Your task to perform on an android device: Go to settings Image 0: 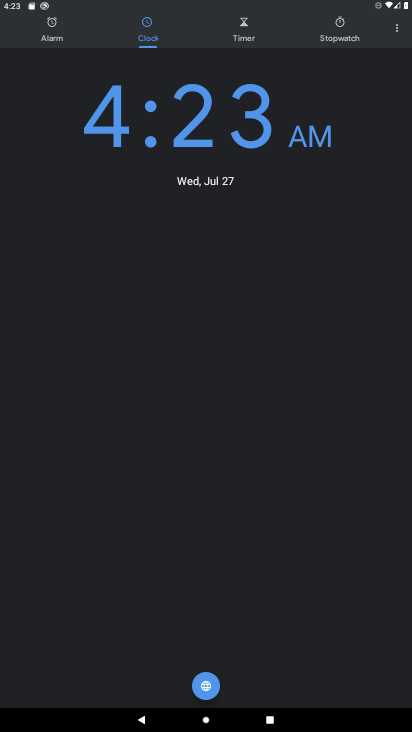
Step 0: press home button
Your task to perform on an android device: Go to settings Image 1: 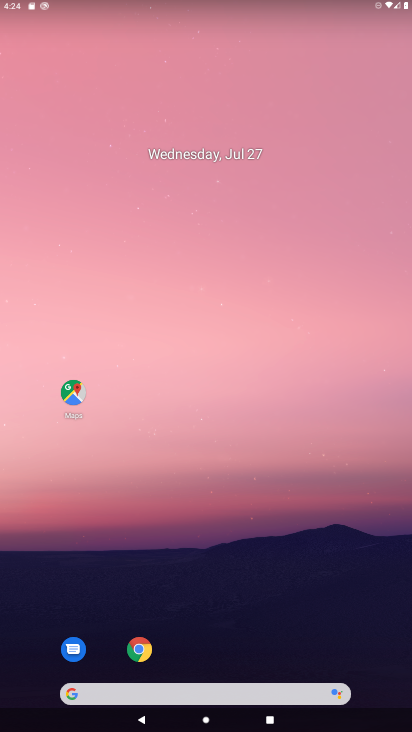
Step 1: drag from (334, 581) to (289, 272)
Your task to perform on an android device: Go to settings Image 2: 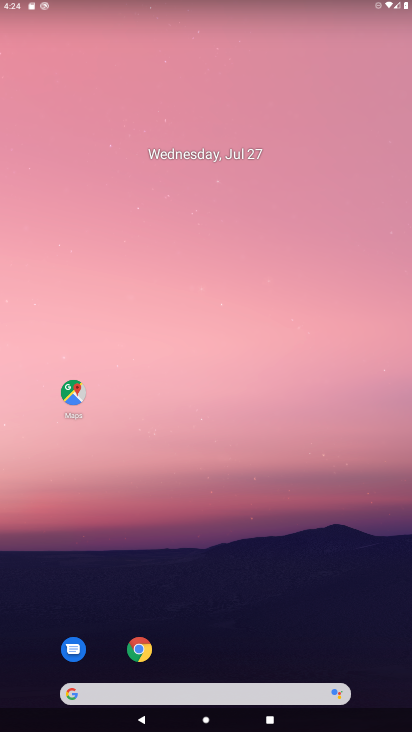
Step 2: drag from (295, 656) to (191, 72)
Your task to perform on an android device: Go to settings Image 3: 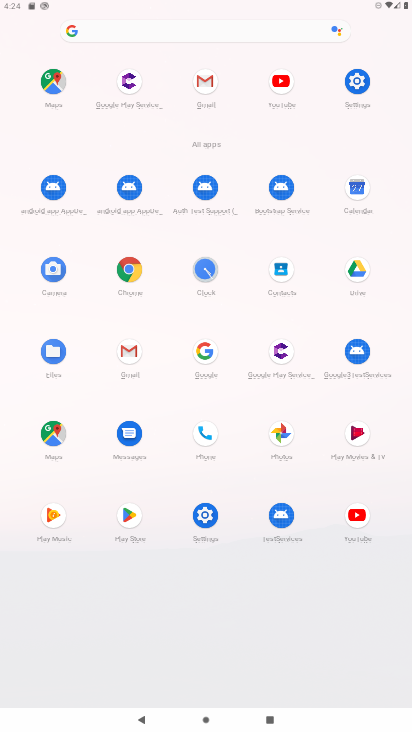
Step 3: click (199, 520)
Your task to perform on an android device: Go to settings Image 4: 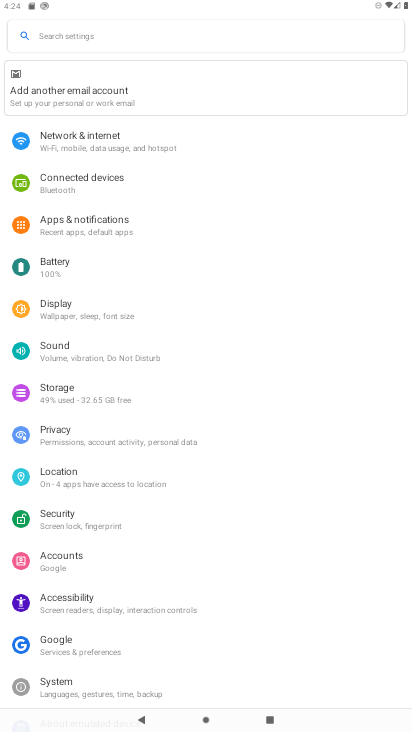
Step 4: task complete